Your task to perform on an android device: Add "dell alienware" to the cart on costco Image 0: 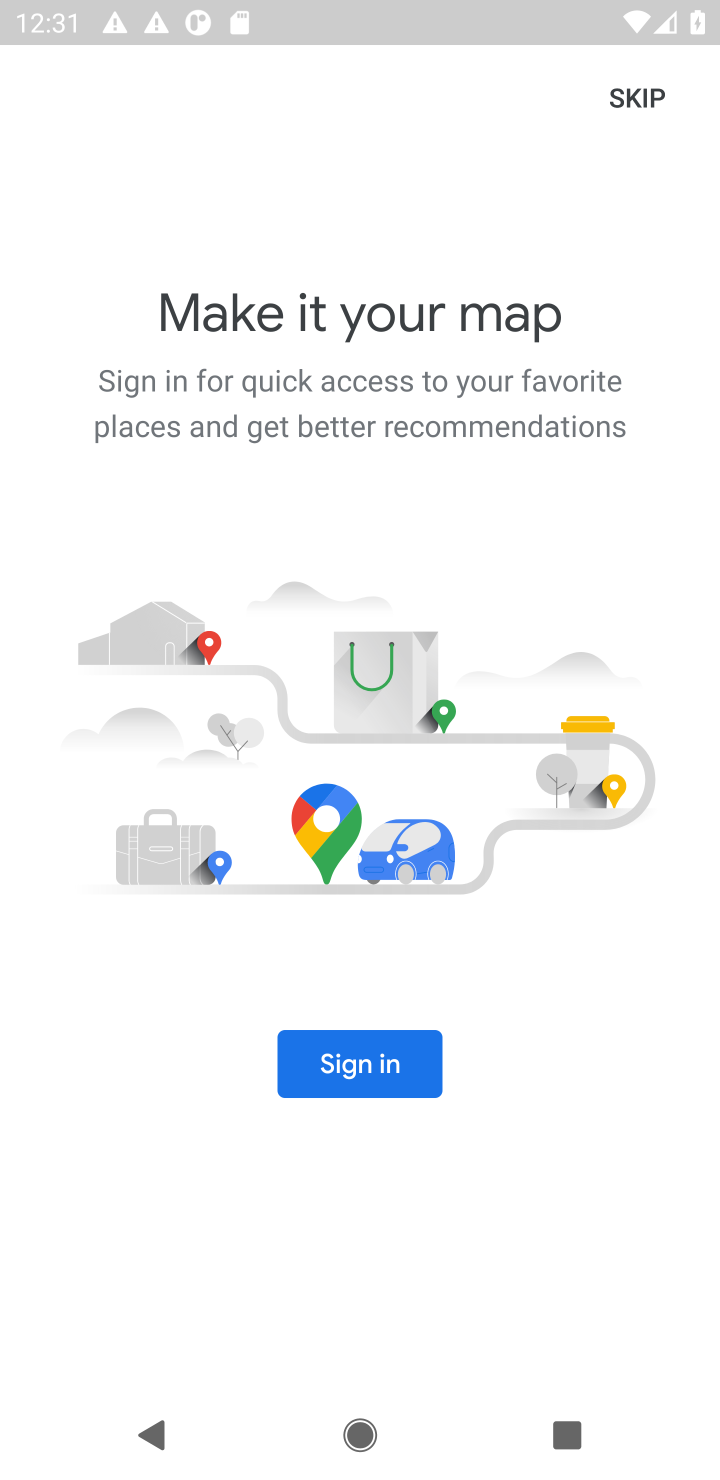
Step 0: press home button
Your task to perform on an android device: Add "dell alienware" to the cart on costco Image 1: 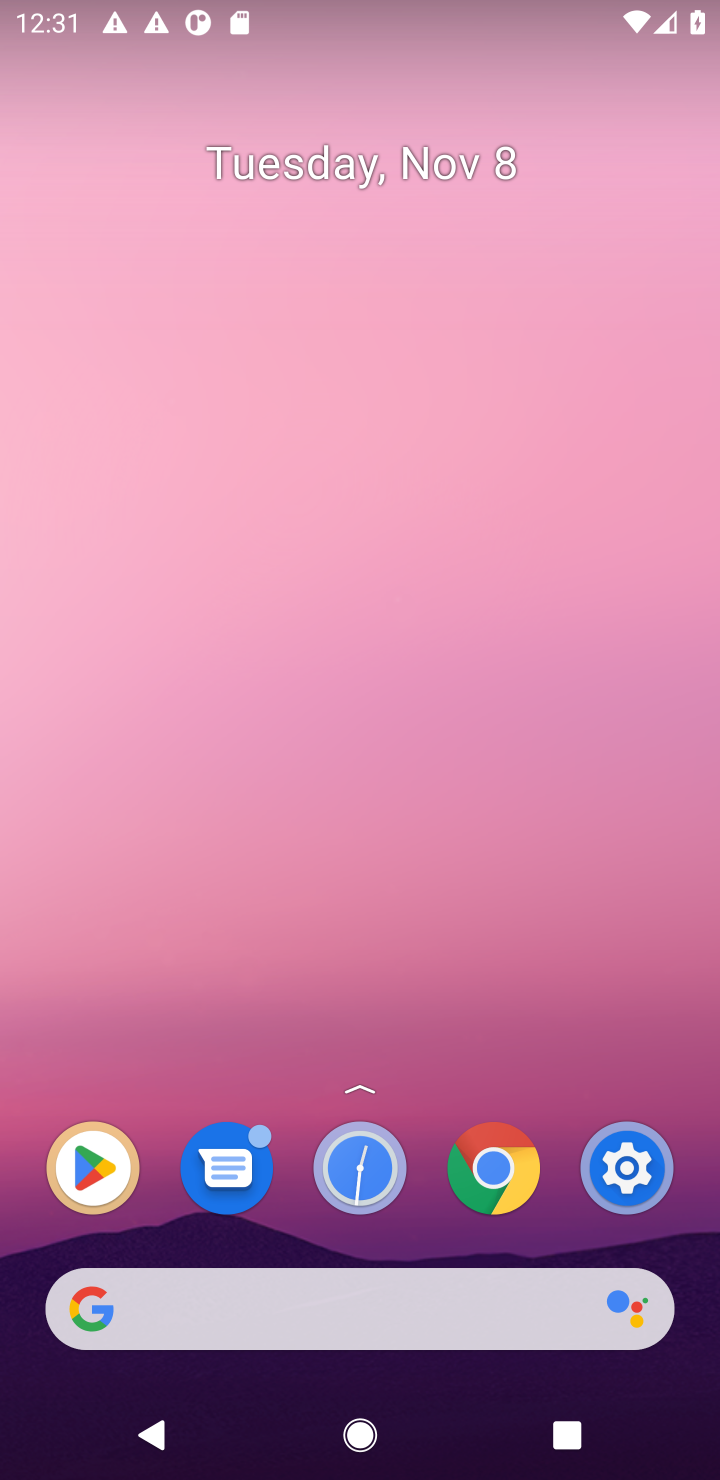
Step 1: drag from (373, 1151) to (318, 291)
Your task to perform on an android device: Add "dell alienware" to the cart on costco Image 2: 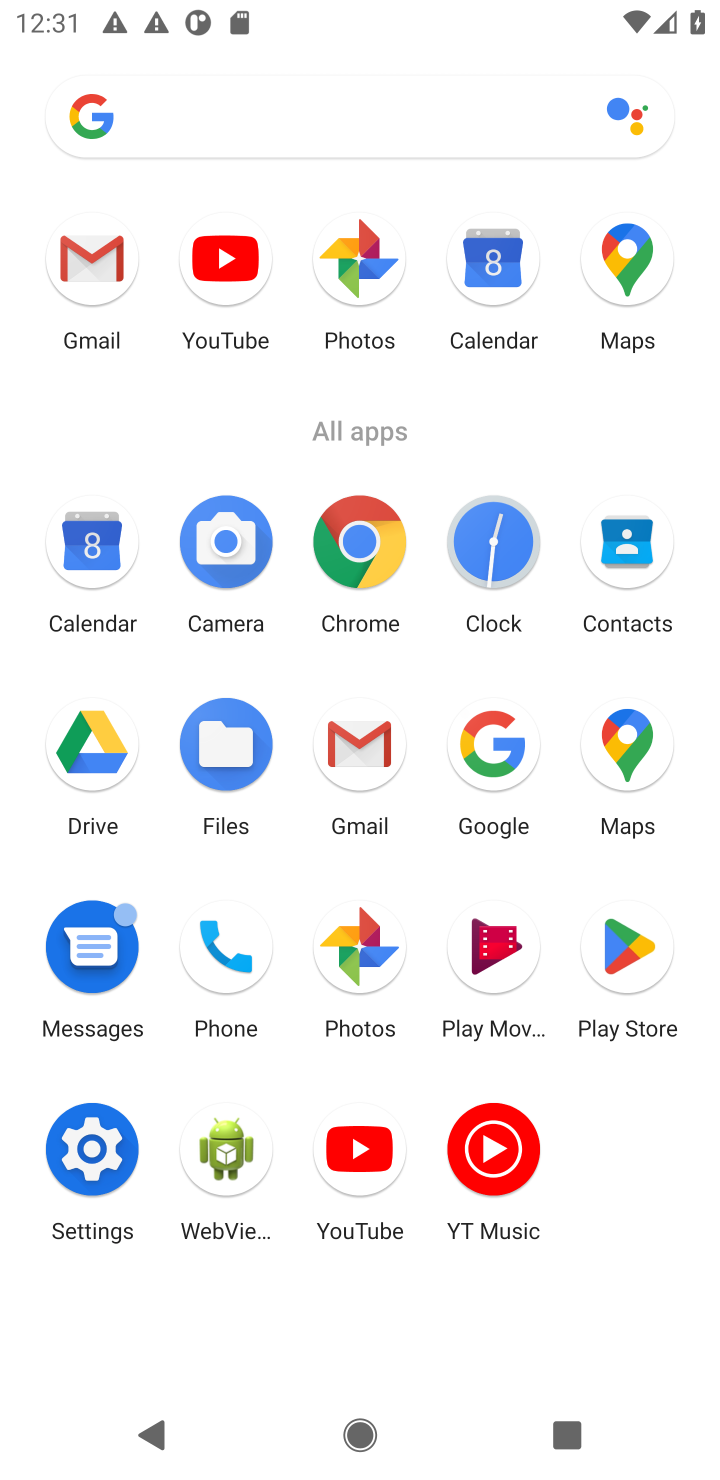
Step 2: click (373, 552)
Your task to perform on an android device: Add "dell alienware" to the cart on costco Image 3: 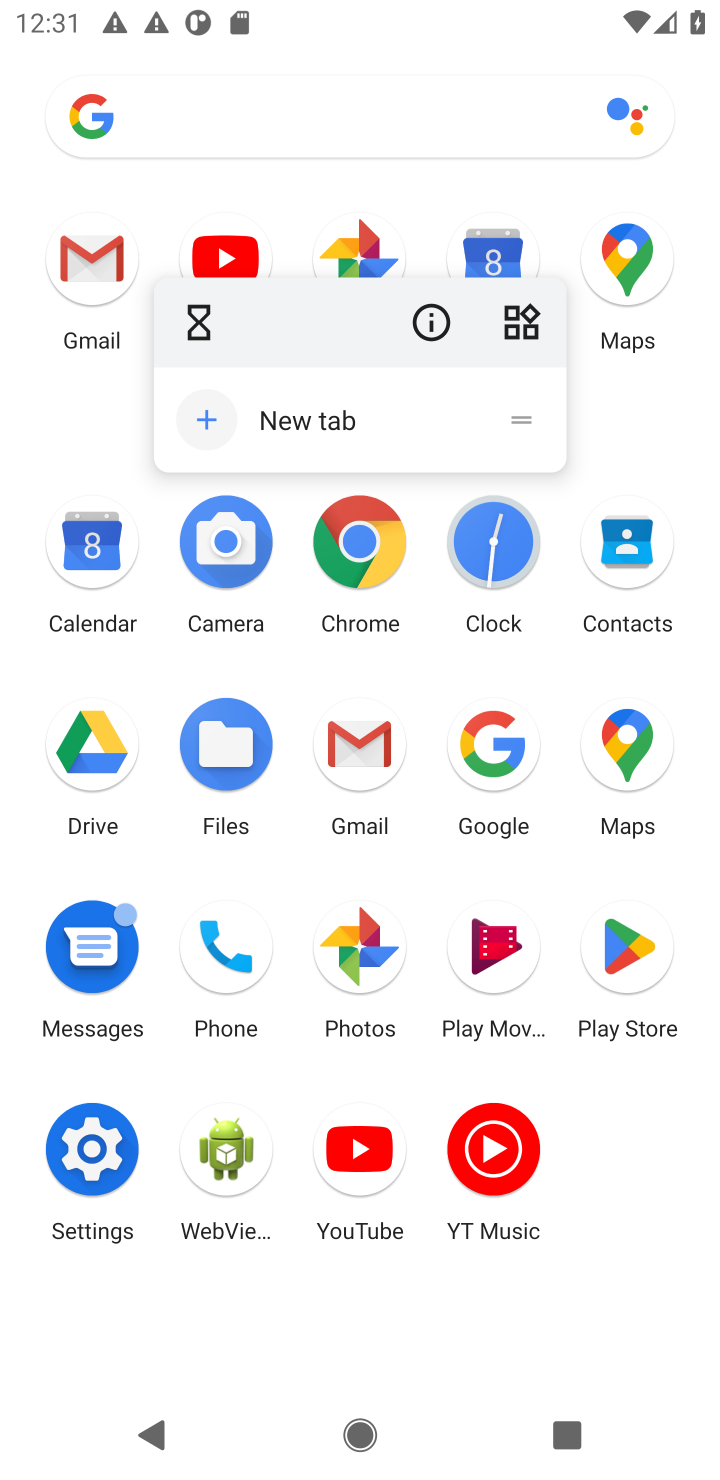
Step 3: click (373, 552)
Your task to perform on an android device: Add "dell alienware" to the cart on costco Image 4: 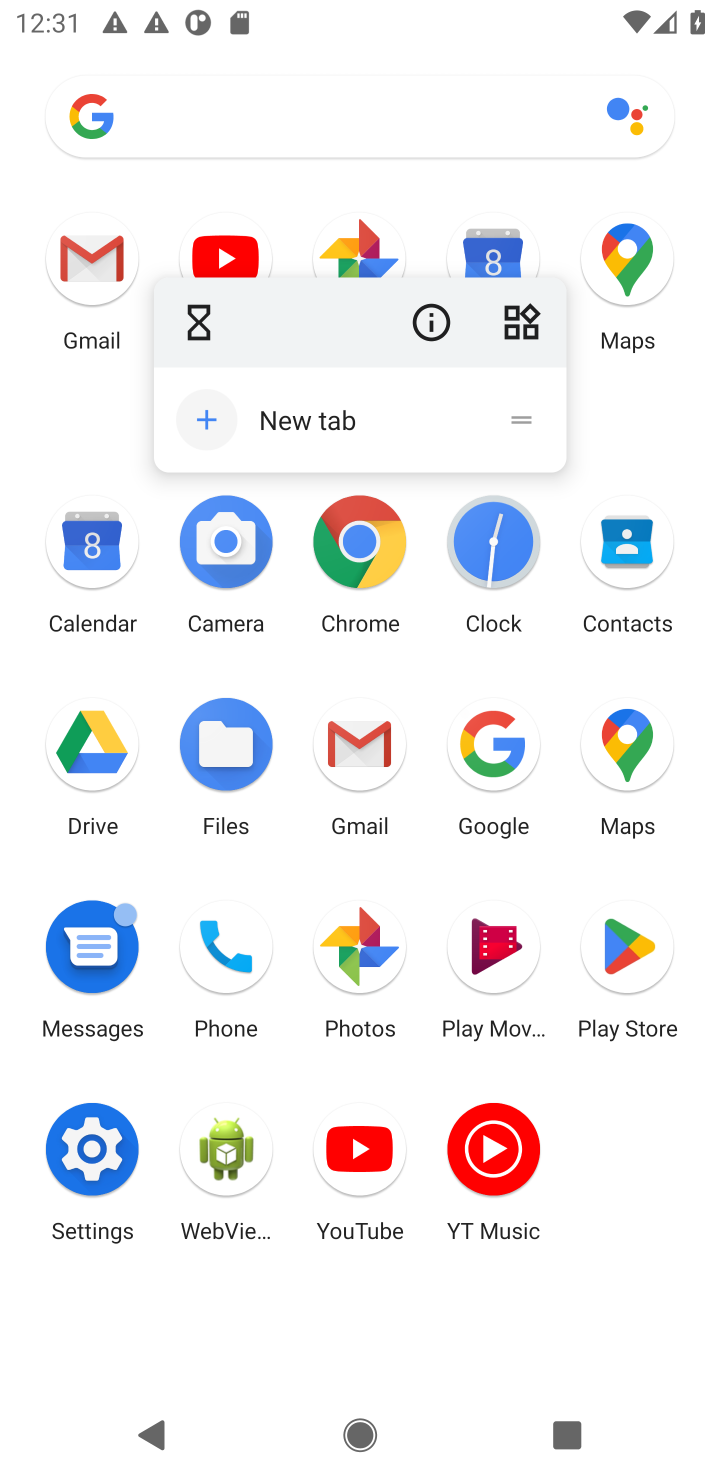
Step 4: click (373, 552)
Your task to perform on an android device: Add "dell alienware" to the cart on costco Image 5: 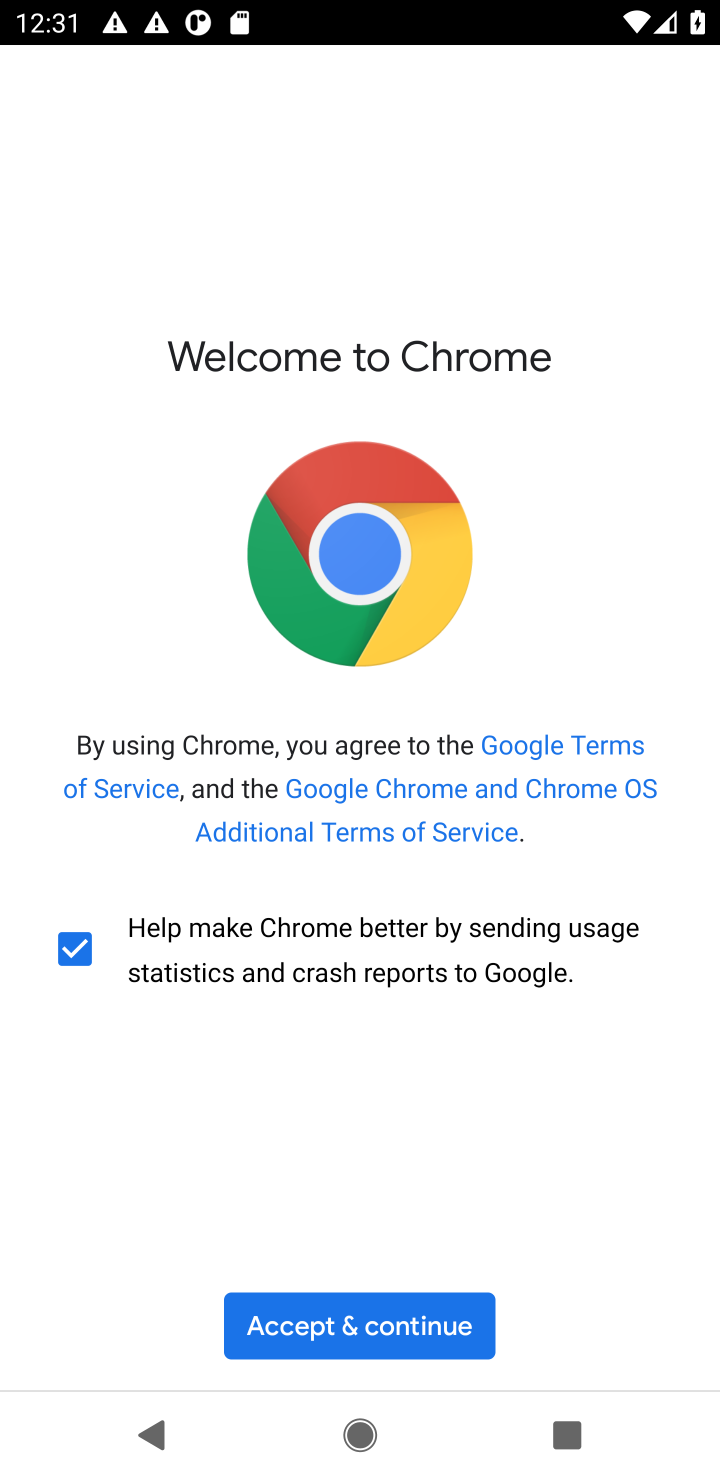
Step 5: click (333, 1323)
Your task to perform on an android device: Add "dell alienware" to the cart on costco Image 6: 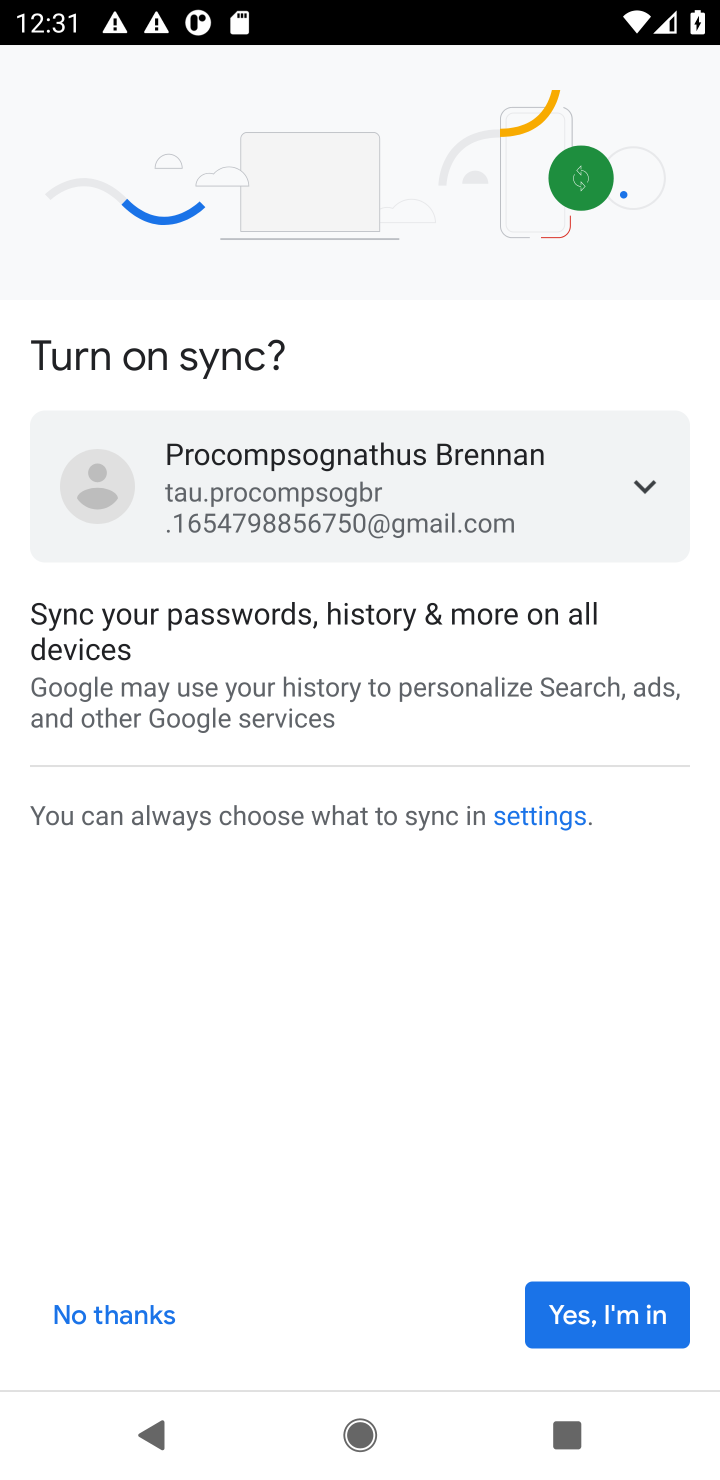
Step 6: click (598, 1331)
Your task to perform on an android device: Add "dell alienware" to the cart on costco Image 7: 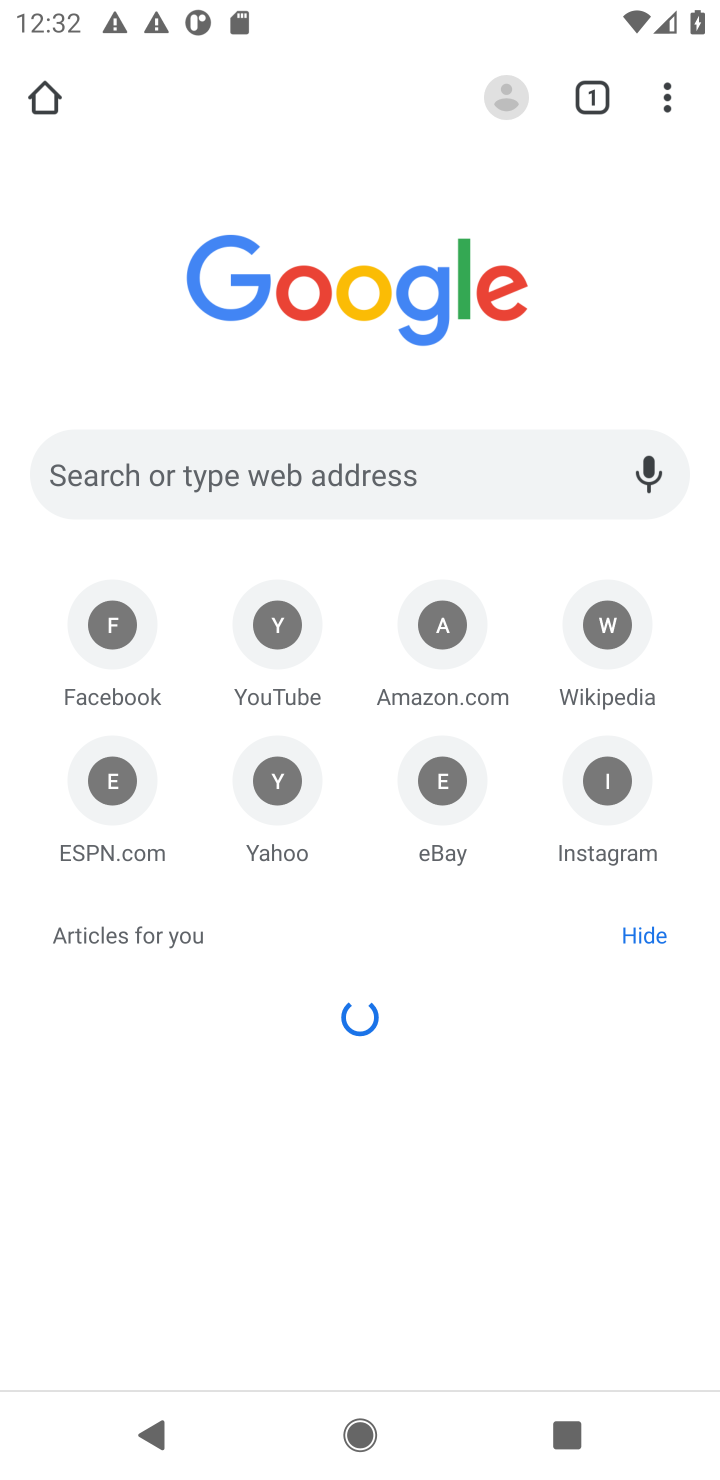
Step 7: click (287, 473)
Your task to perform on an android device: Add "dell alienware" to the cart on costco Image 8: 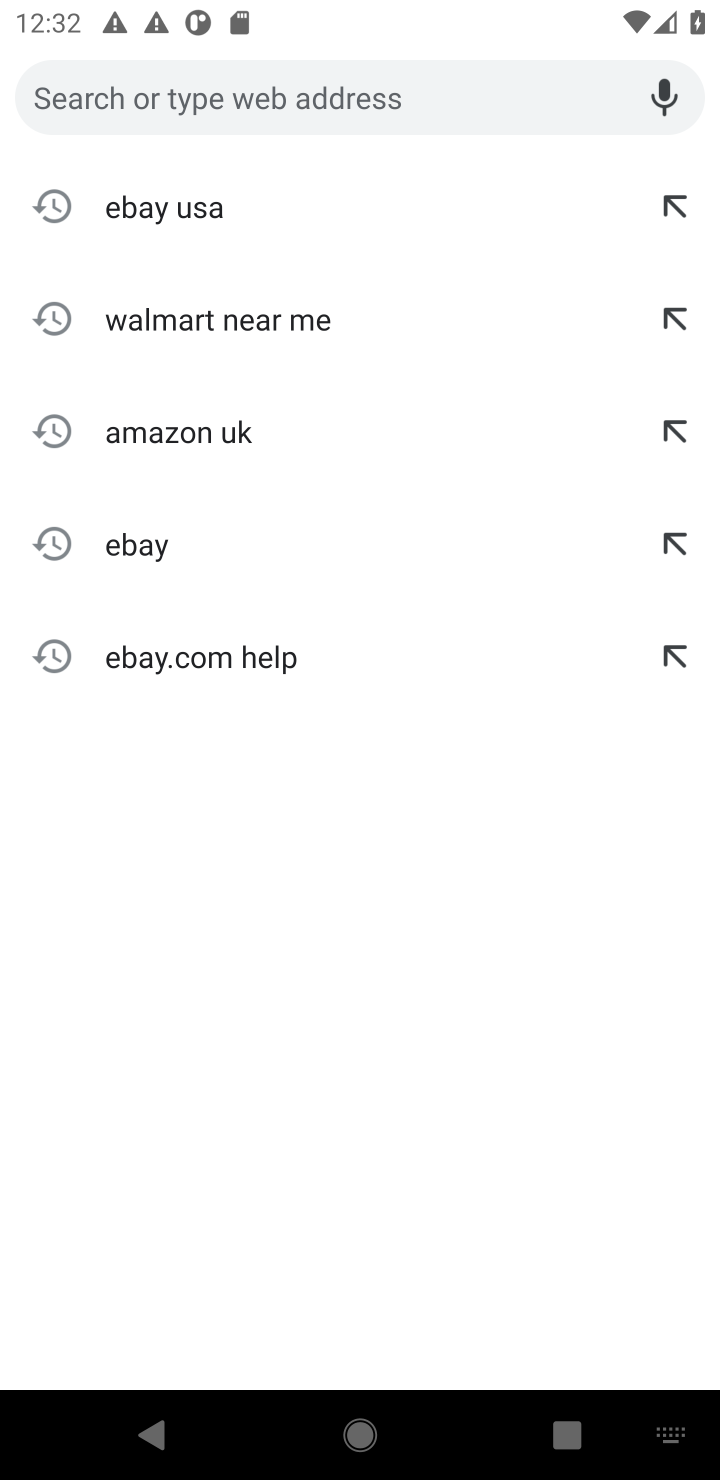
Step 8: type "costco"
Your task to perform on an android device: Add "dell alienware" to the cart on costco Image 9: 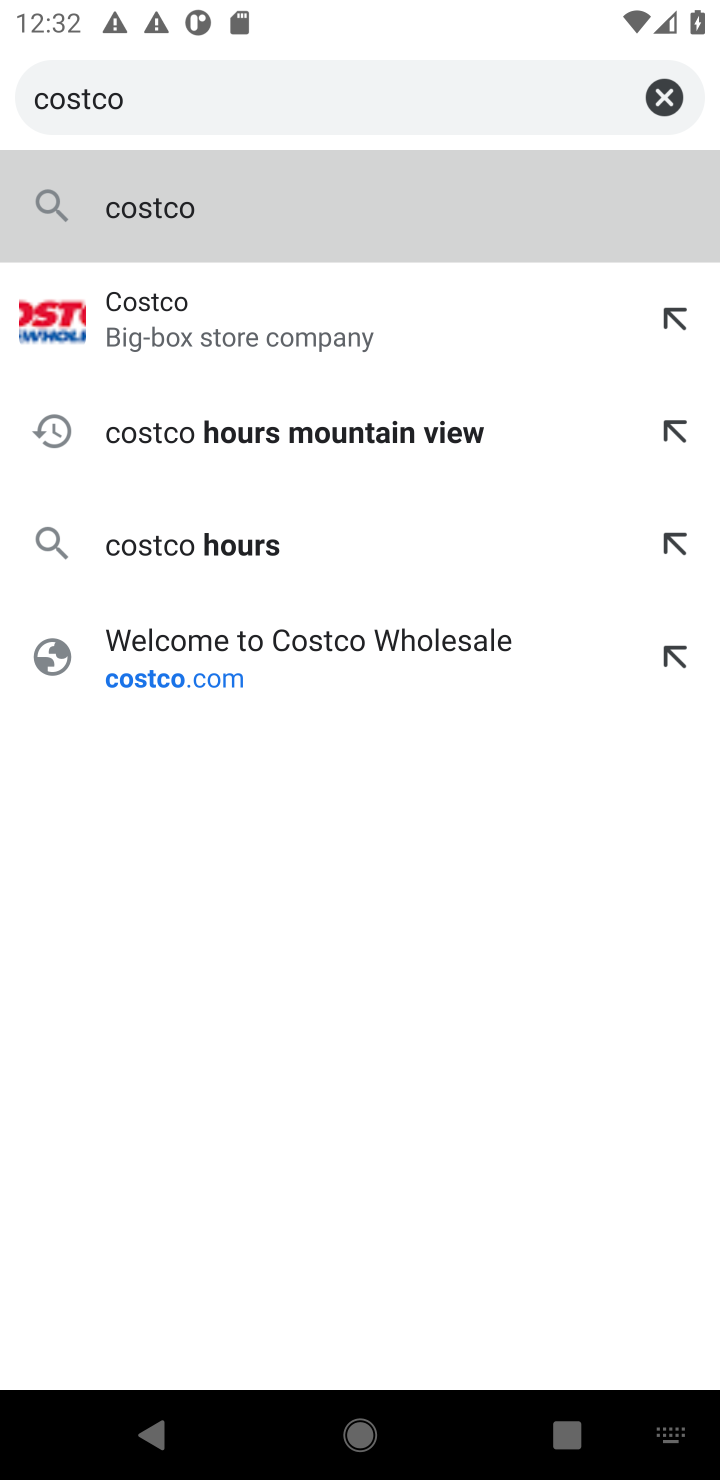
Step 9: press enter
Your task to perform on an android device: Add "dell alienware" to the cart on costco Image 10: 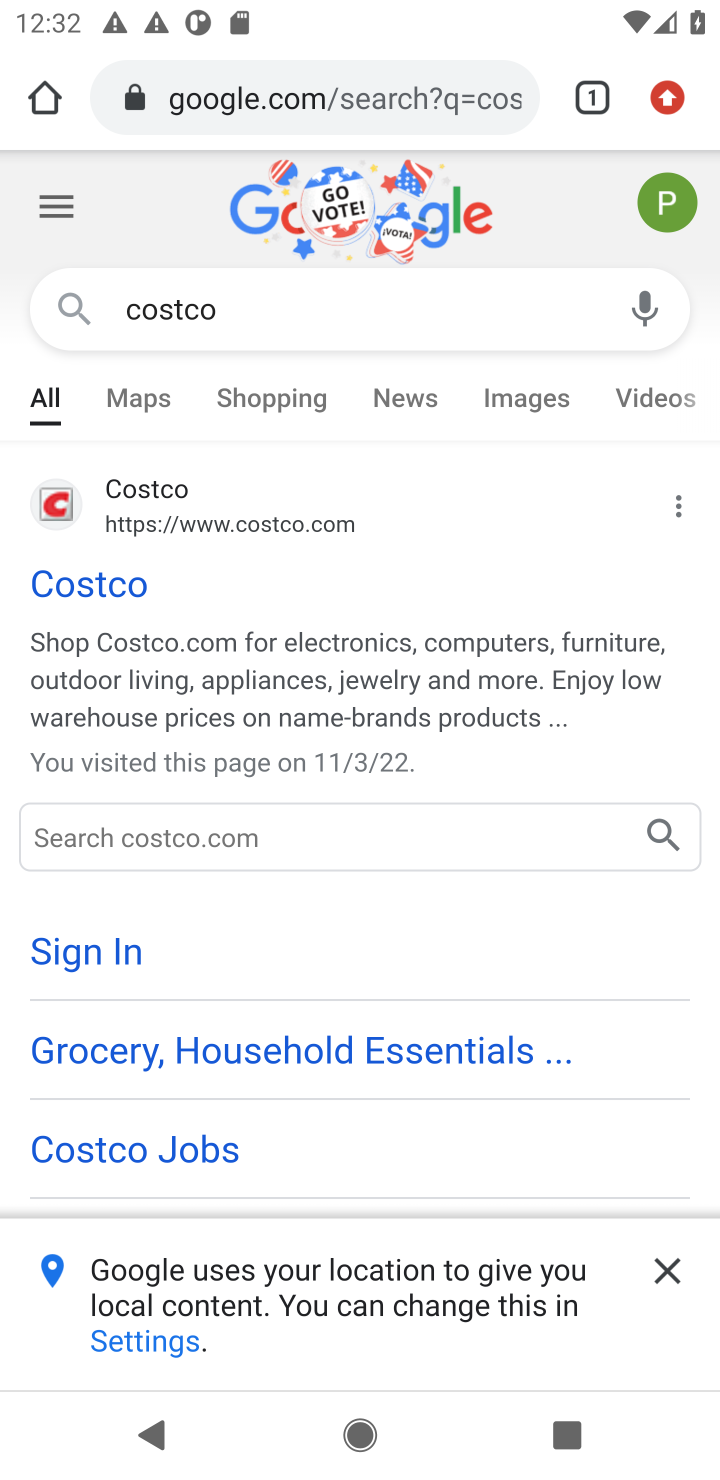
Step 10: click (209, 512)
Your task to perform on an android device: Add "dell alienware" to the cart on costco Image 11: 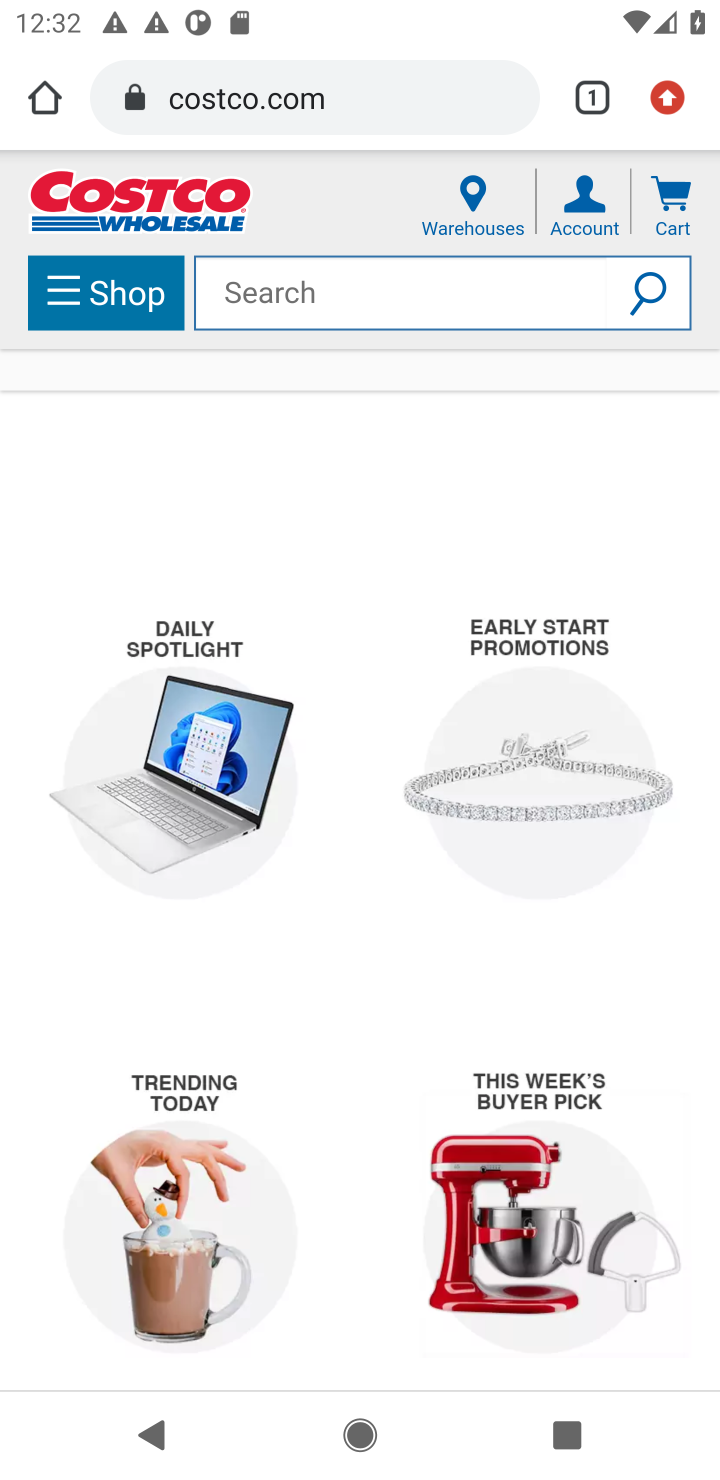
Step 11: click (353, 297)
Your task to perform on an android device: Add "dell alienware" to the cart on costco Image 12: 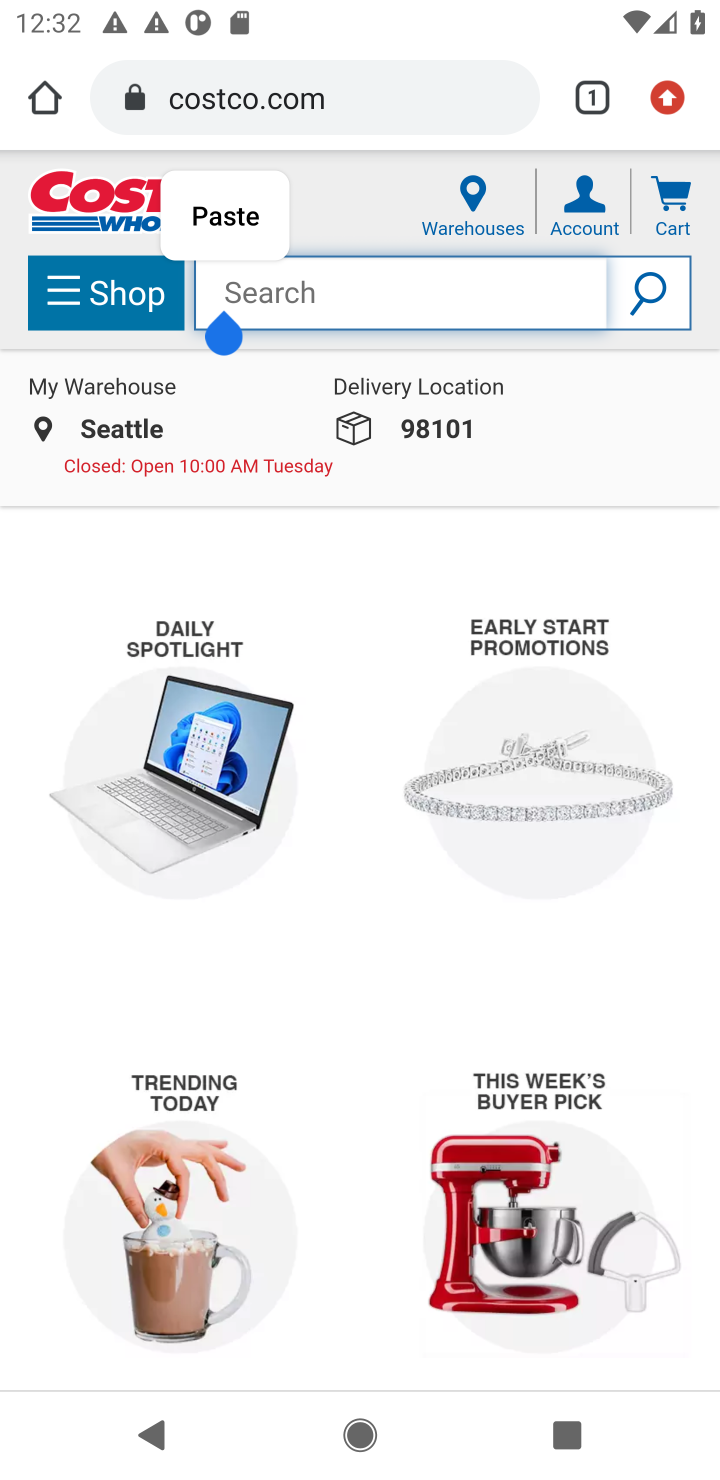
Step 12: type "dell alienware"
Your task to perform on an android device: Add "dell alienware" to the cart on costco Image 13: 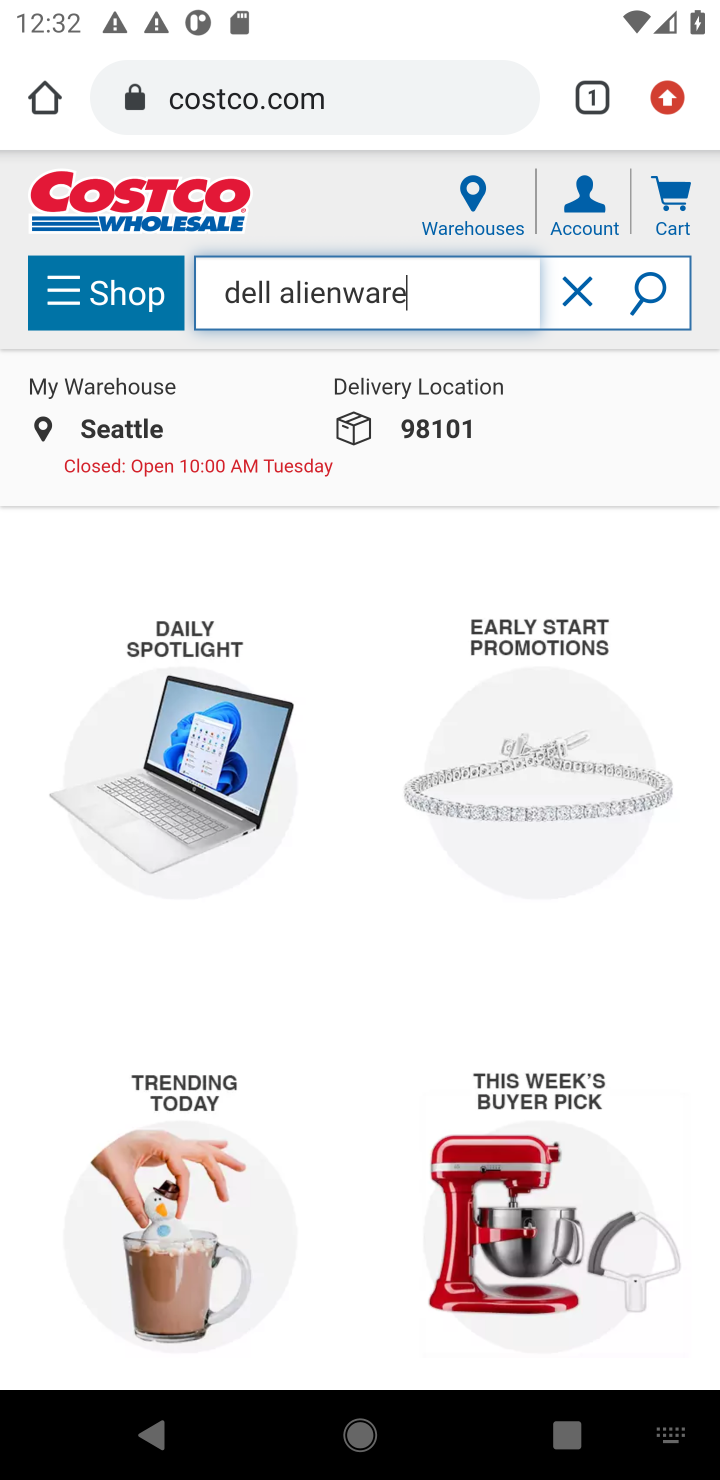
Step 13: press enter
Your task to perform on an android device: Add "dell alienware" to the cart on costco Image 14: 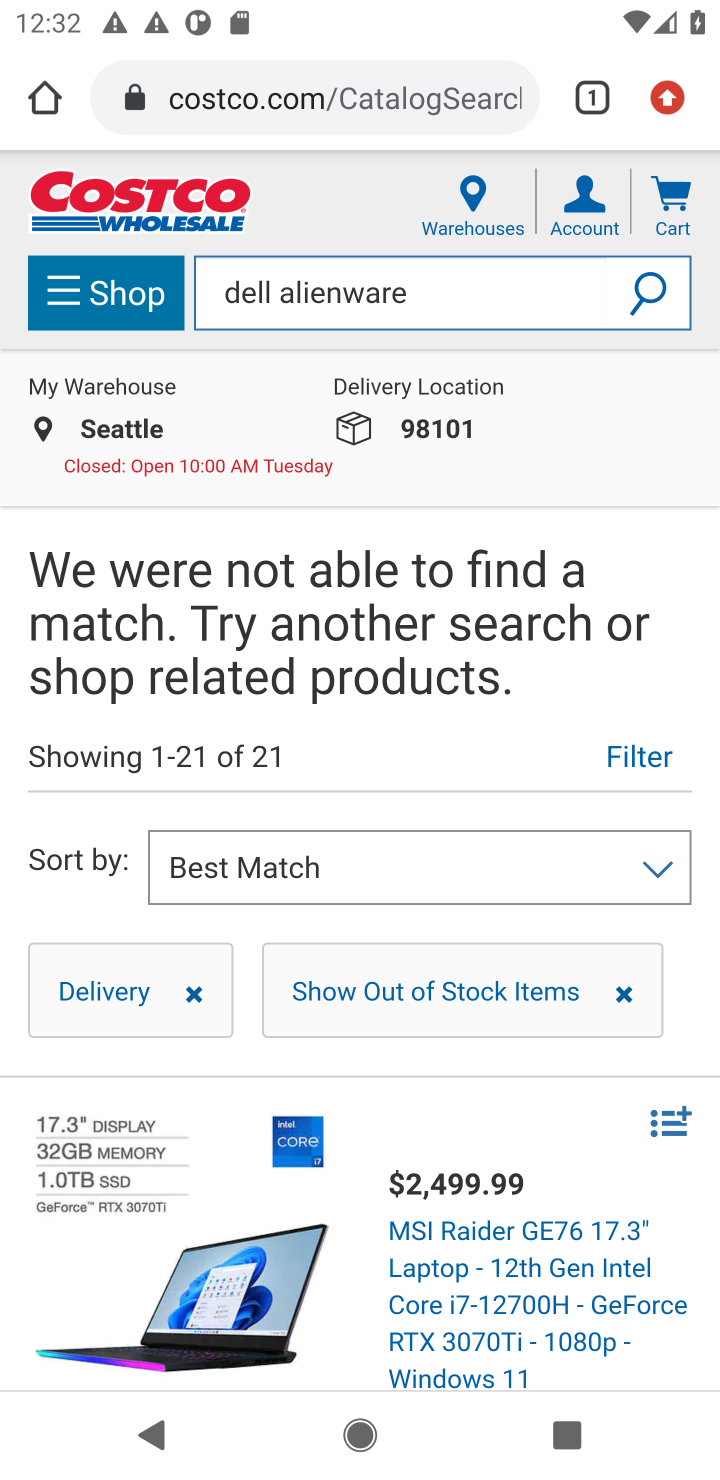
Step 14: drag from (516, 1242) to (553, 662)
Your task to perform on an android device: Add "dell alienware" to the cart on costco Image 15: 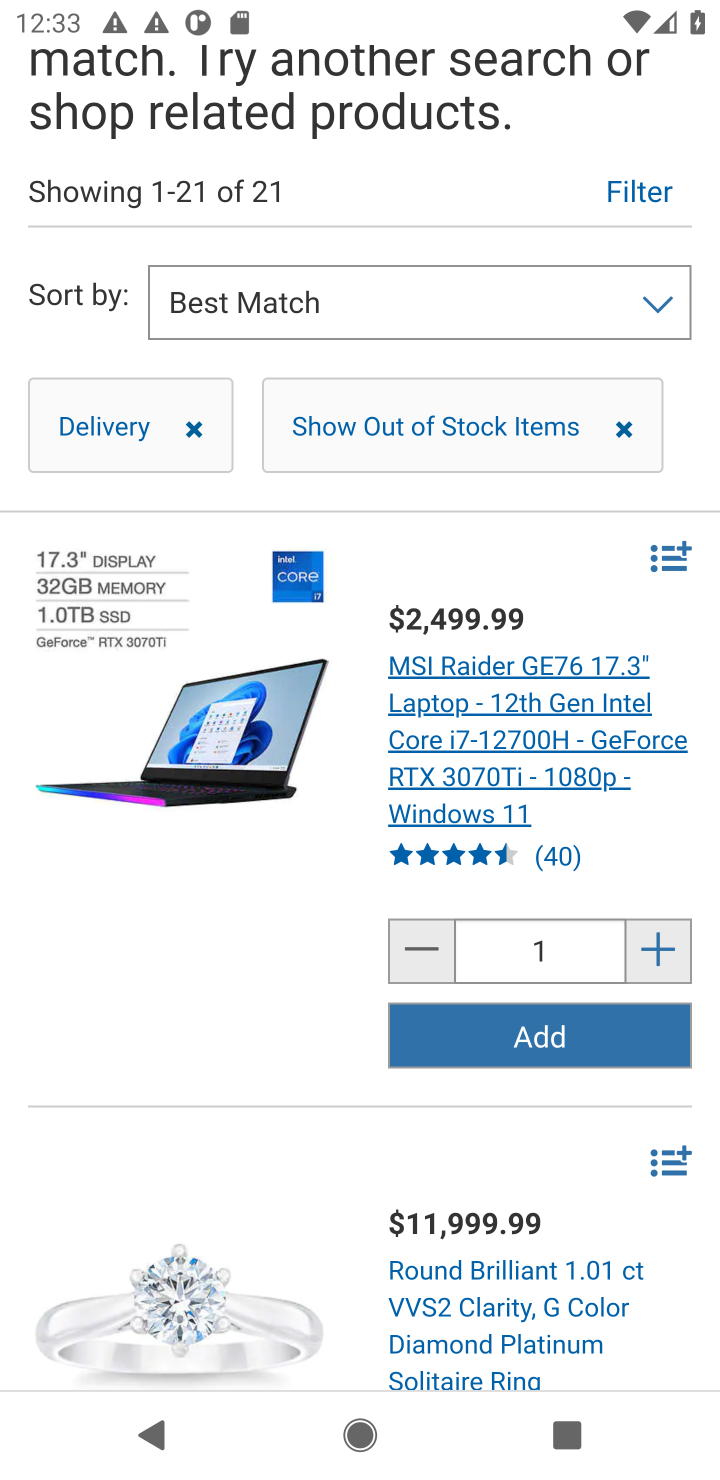
Step 15: click (514, 1028)
Your task to perform on an android device: Add "dell alienware" to the cart on costco Image 16: 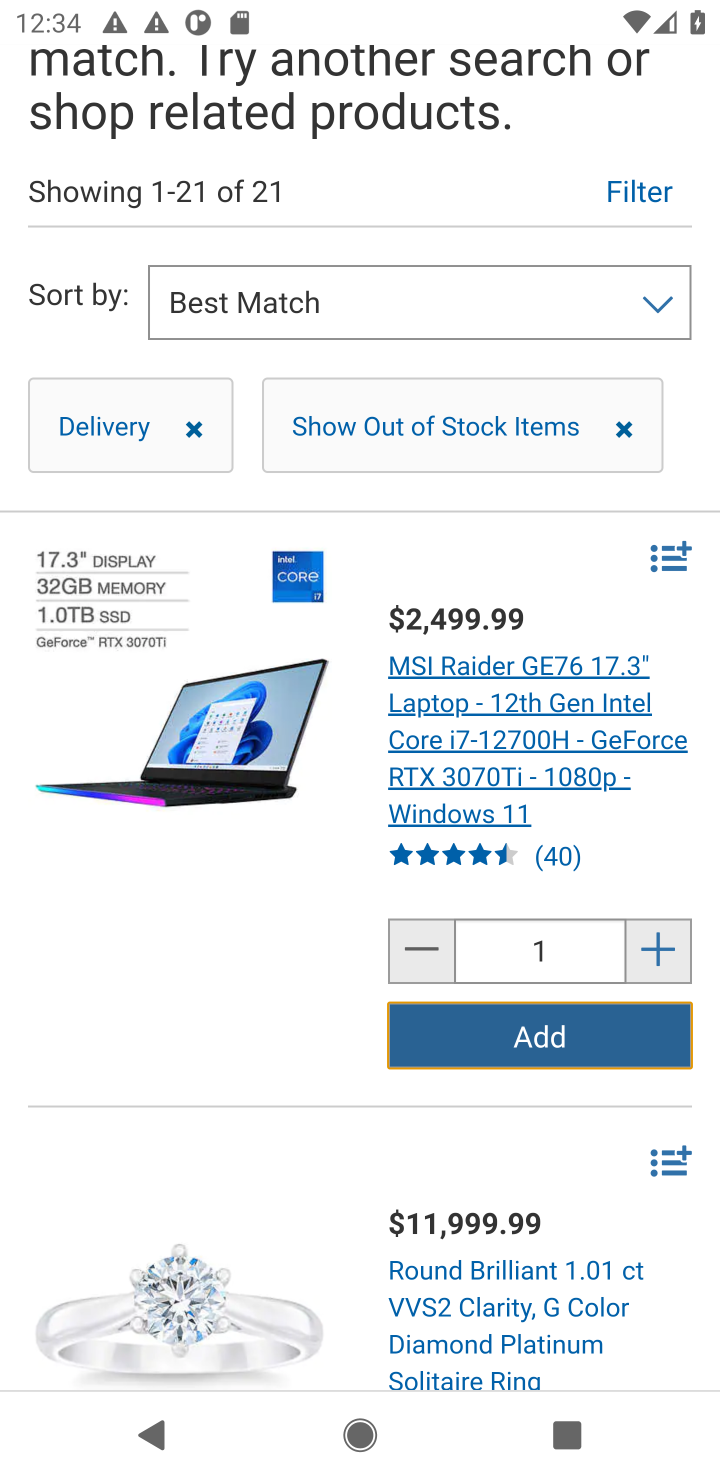
Step 16: task complete